Your task to perform on an android device: turn off wifi Image 0: 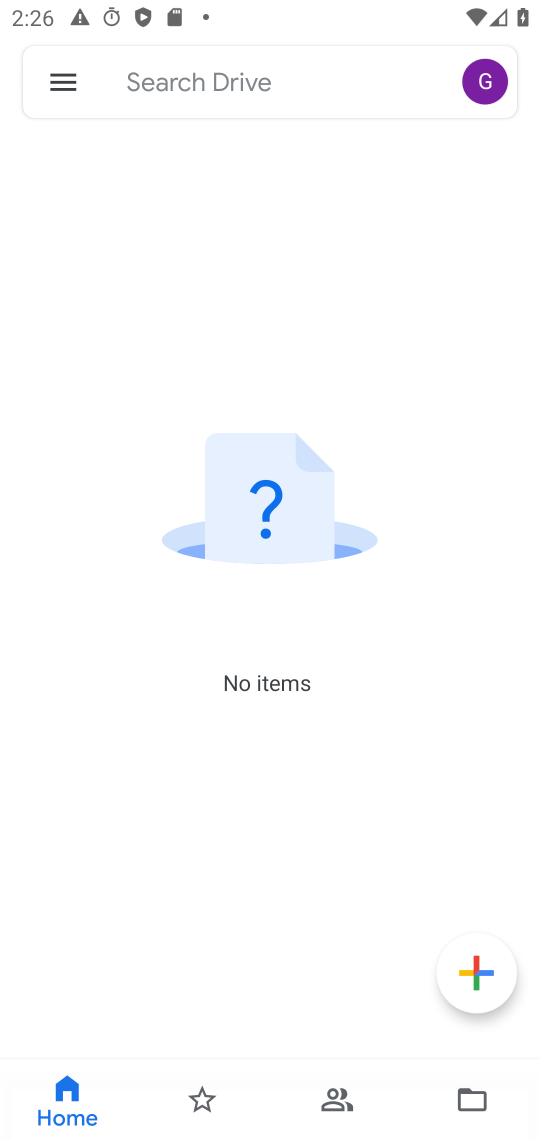
Step 0: press home button
Your task to perform on an android device: turn off wifi Image 1: 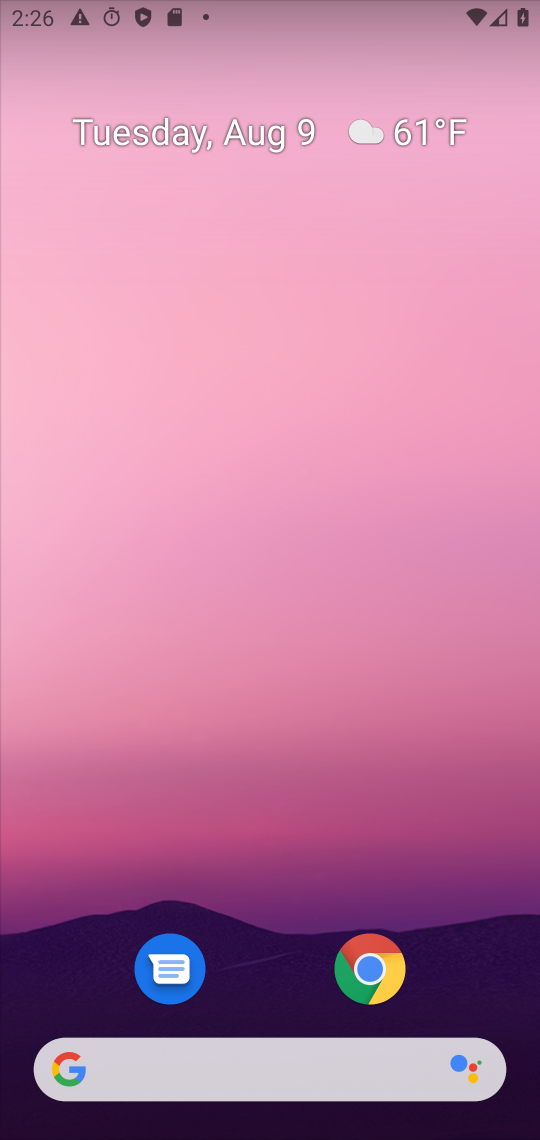
Step 1: drag from (303, 1104) to (215, 344)
Your task to perform on an android device: turn off wifi Image 2: 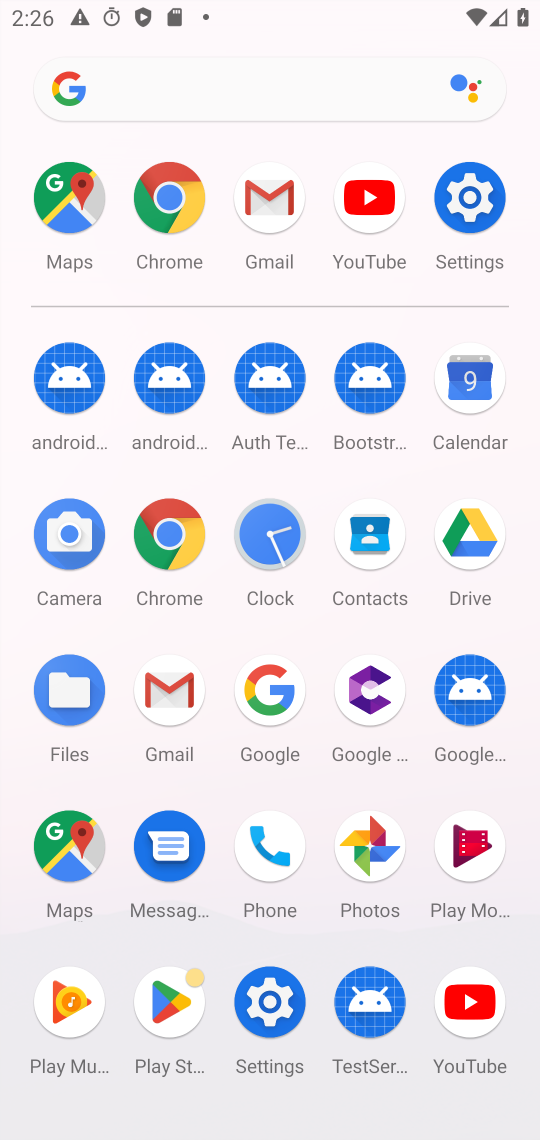
Step 2: click (460, 203)
Your task to perform on an android device: turn off wifi Image 3: 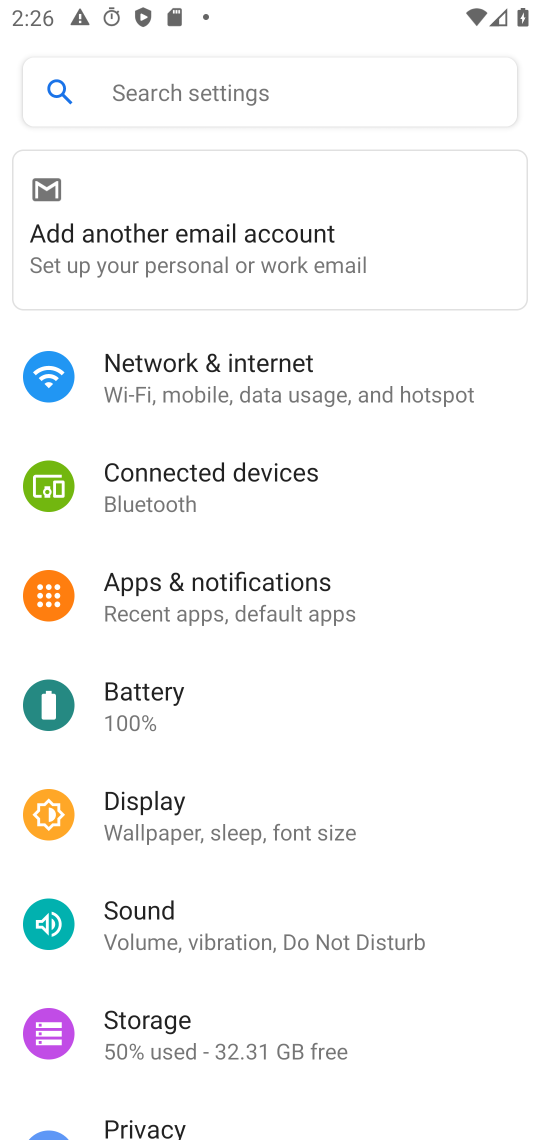
Step 3: click (253, 375)
Your task to perform on an android device: turn off wifi Image 4: 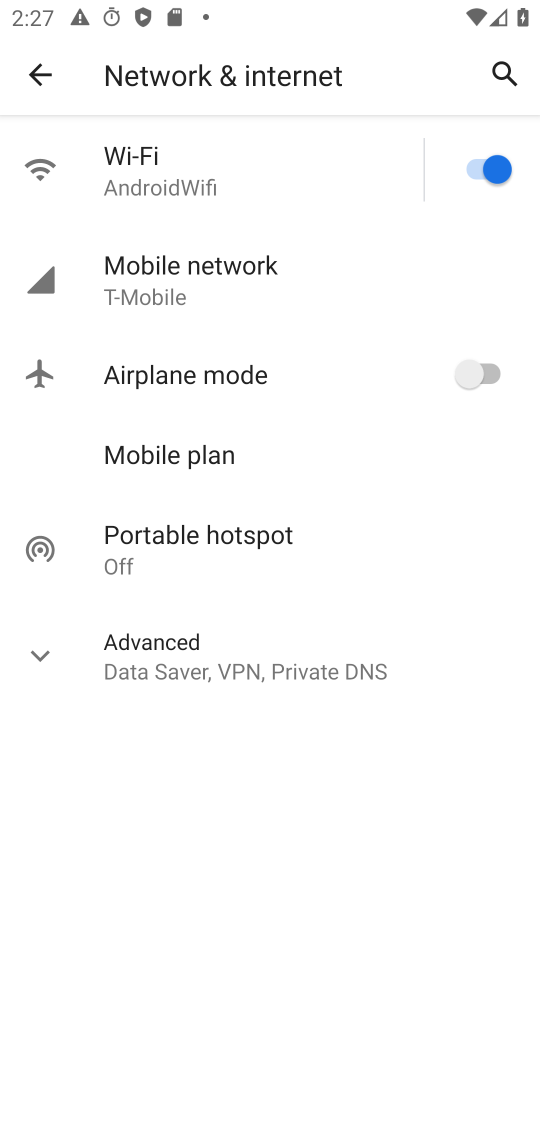
Step 4: click (226, 198)
Your task to perform on an android device: turn off wifi Image 5: 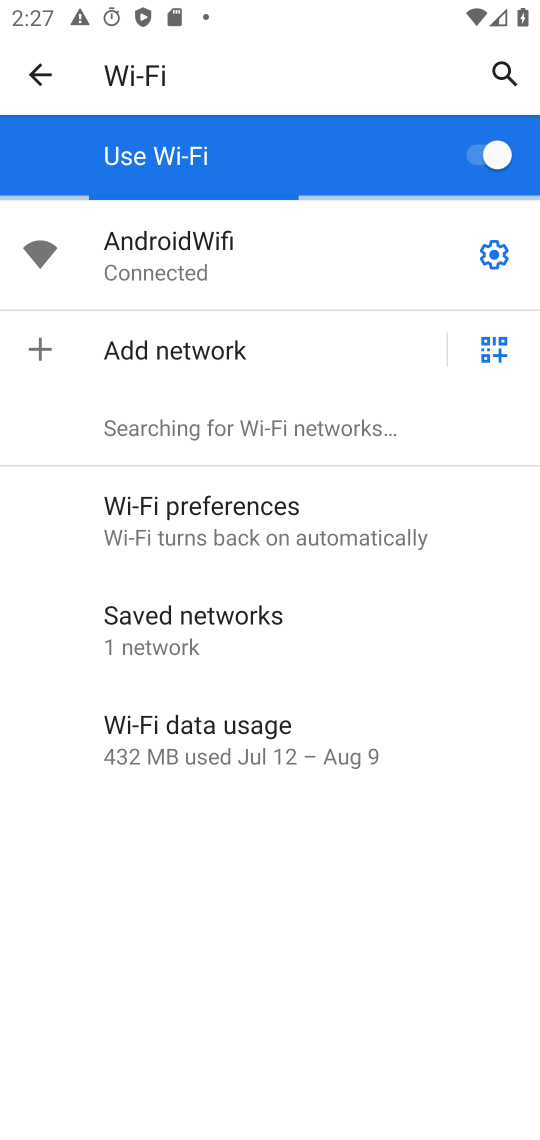
Step 5: click (462, 167)
Your task to perform on an android device: turn off wifi Image 6: 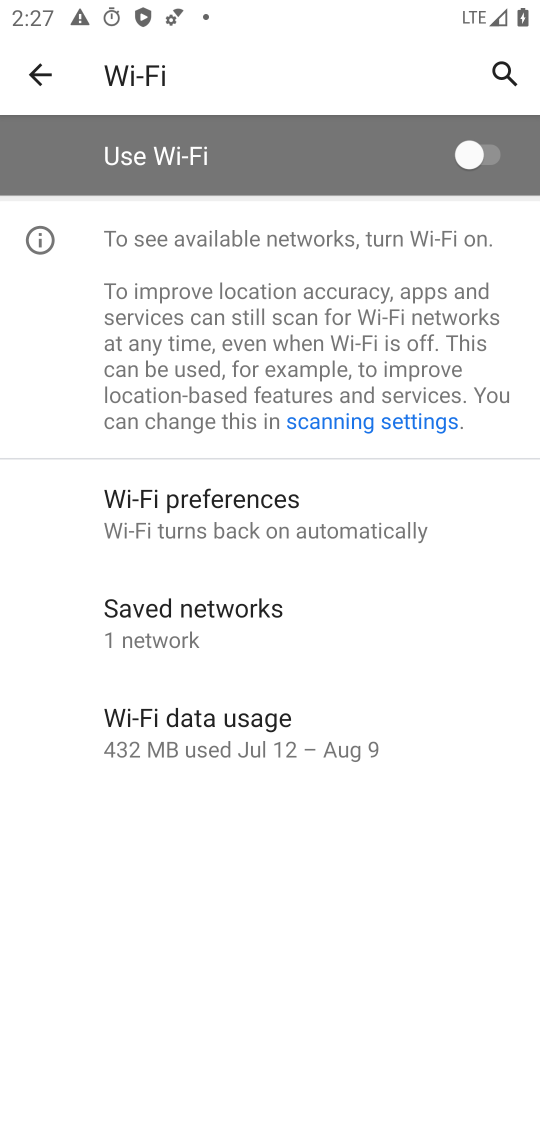
Step 6: task complete